Your task to perform on an android device: Go to network settings Image 0: 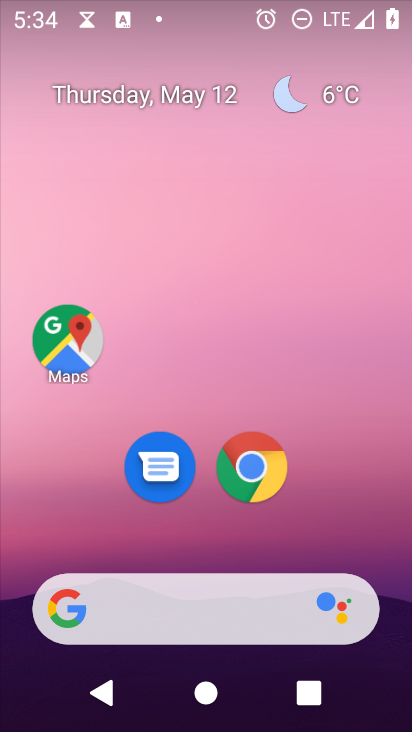
Step 0: drag from (186, 535) to (240, 94)
Your task to perform on an android device: Go to network settings Image 1: 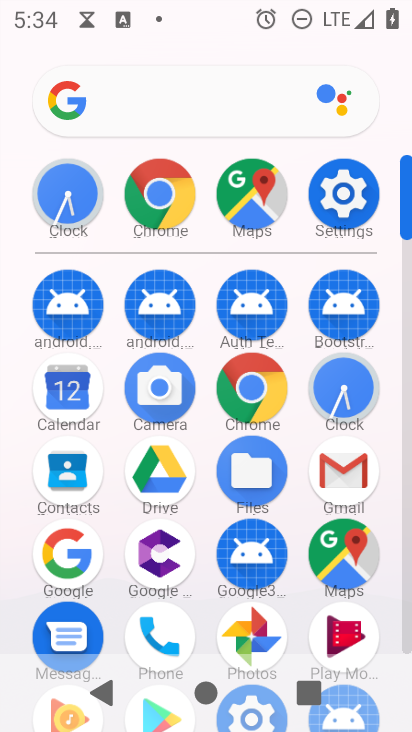
Step 1: click (359, 189)
Your task to perform on an android device: Go to network settings Image 2: 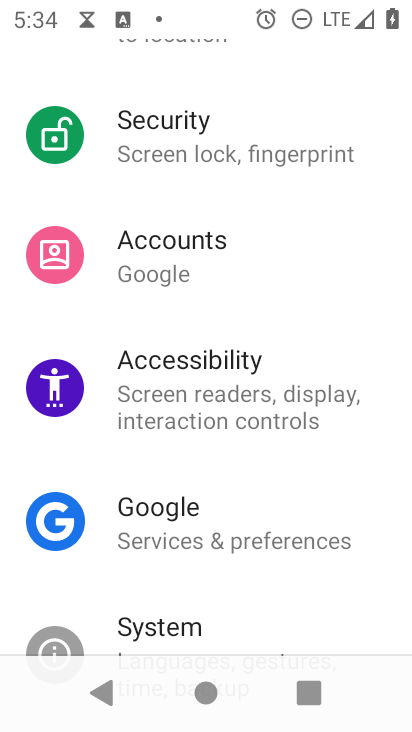
Step 2: drag from (225, 179) to (259, 644)
Your task to perform on an android device: Go to network settings Image 3: 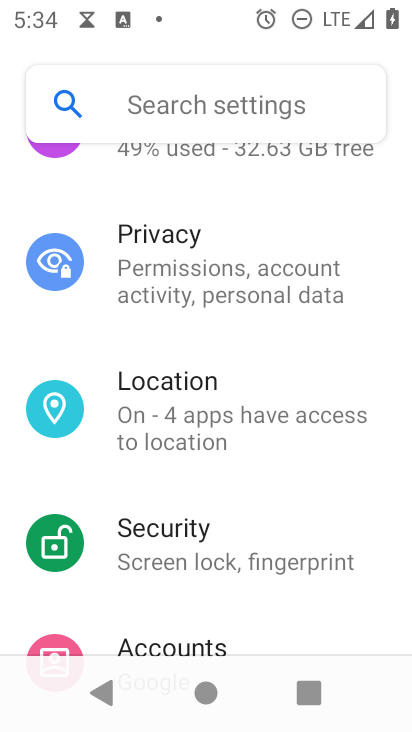
Step 3: drag from (202, 261) to (260, 692)
Your task to perform on an android device: Go to network settings Image 4: 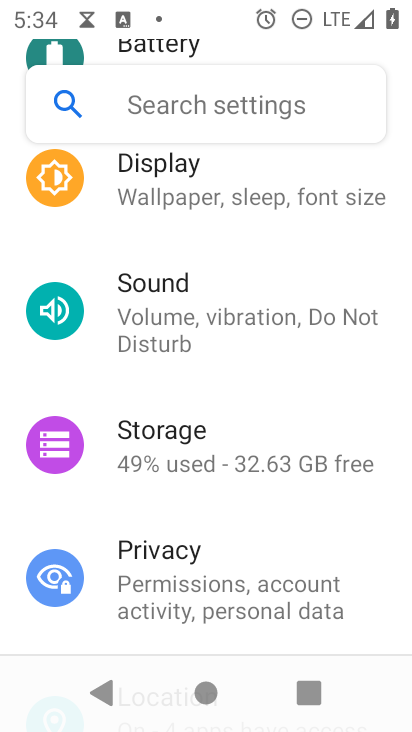
Step 4: drag from (236, 335) to (274, 622)
Your task to perform on an android device: Go to network settings Image 5: 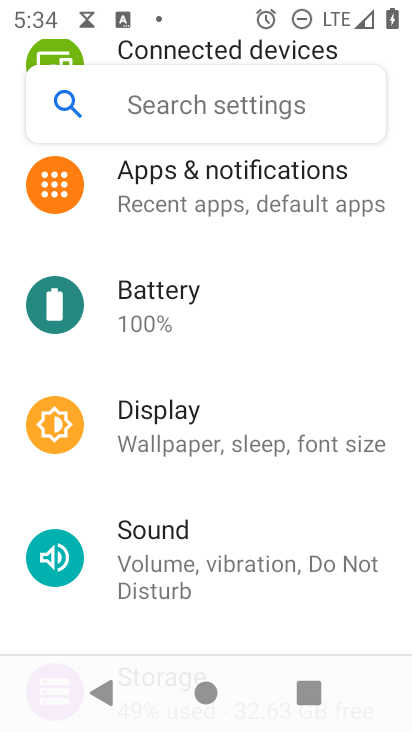
Step 5: drag from (267, 258) to (242, 642)
Your task to perform on an android device: Go to network settings Image 6: 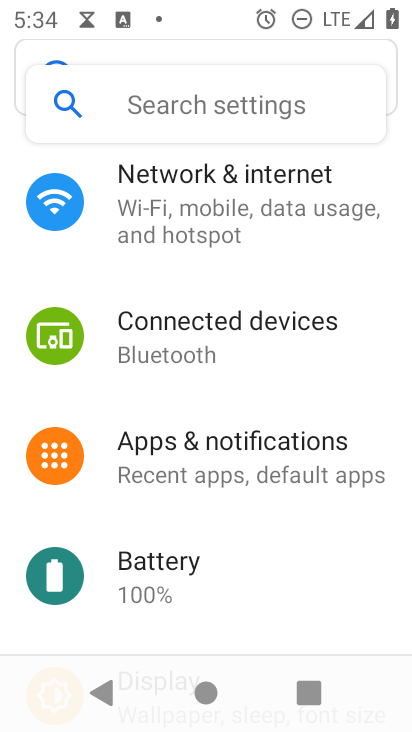
Step 6: click (272, 239)
Your task to perform on an android device: Go to network settings Image 7: 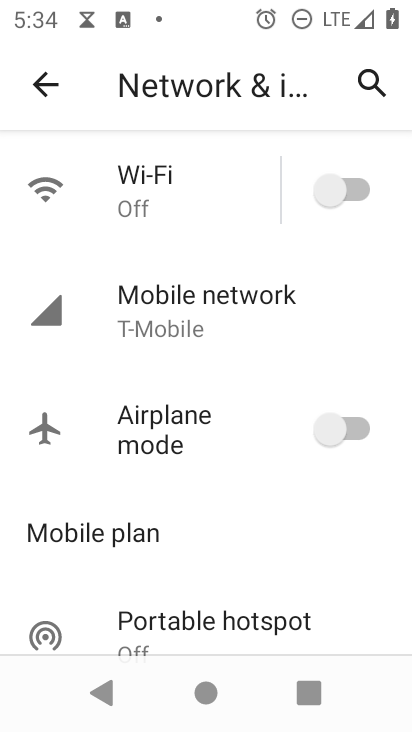
Step 7: task complete